Your task to perform on an android device: turn on the 12-hour format for clock Image 0: 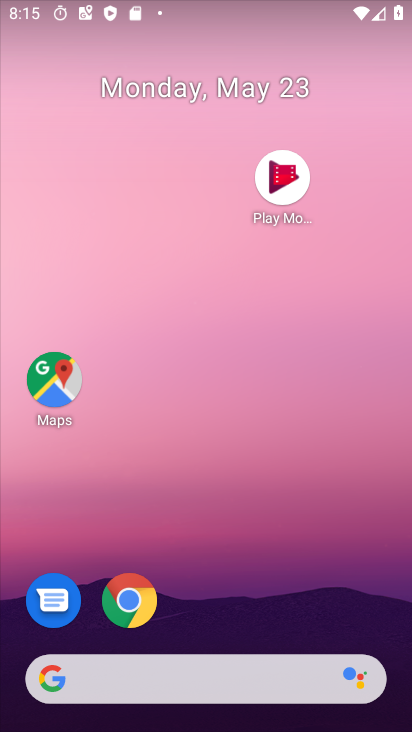
Step 0: drag from (340, 676) to (328, 38)
Your task to perform on an android device: turn on the 12-hour format for clock Image 1: 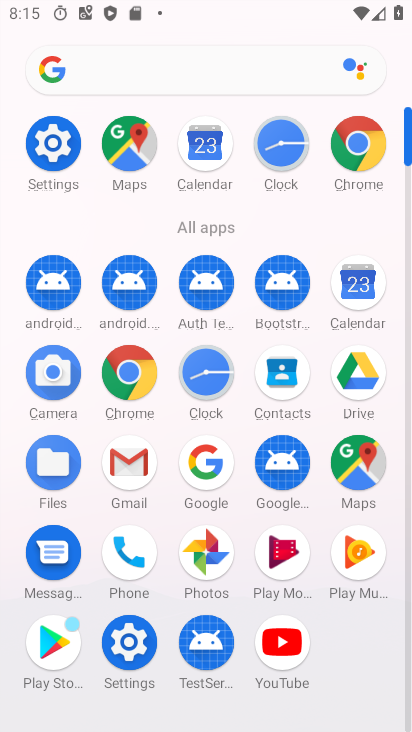
Step 1: click (198, 380)
Your task to perform on an android device: turn on the 12-hour format for clock Image 2: 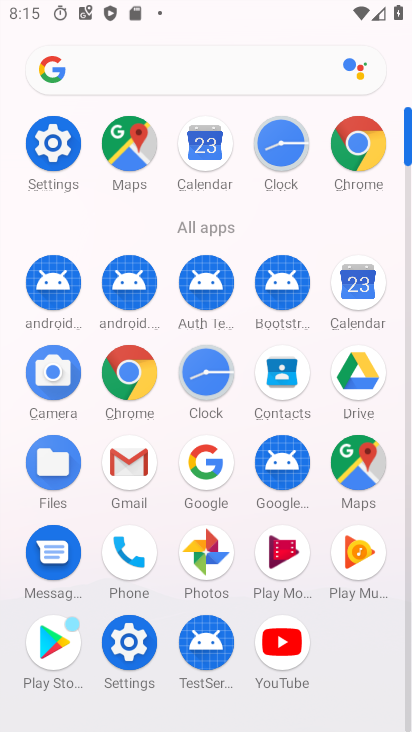
Step 2: click (201, 380)
Your task to perform on an android device: turn on the 12-hour format for clock Image 3: 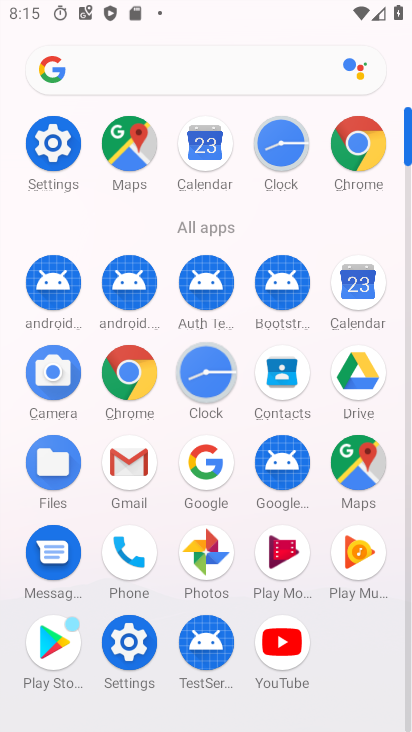
Step 3: click (199, 383)
Your task to perform on an android device: turn on the 12-hour format for clock Image 4: 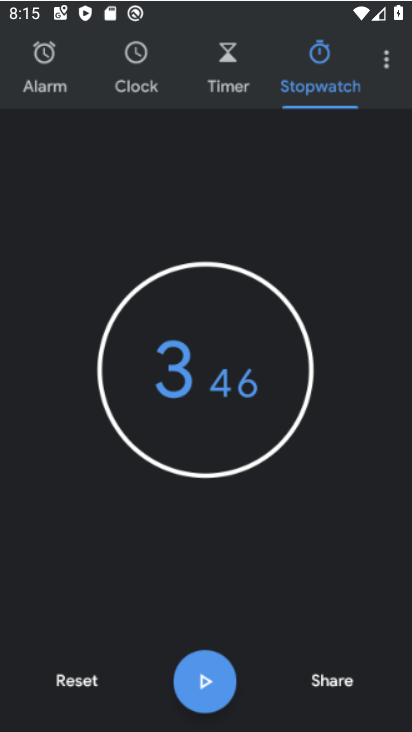
Step 4: click (199, 383)
Your task to perform on an android device: turn on the 12-hour format for clock Image 5: 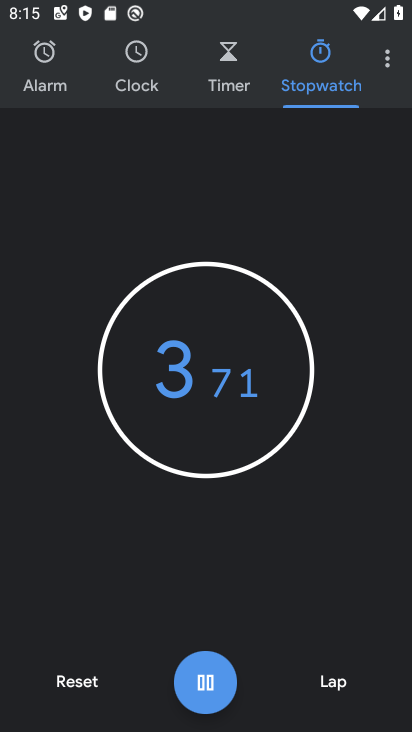
Step 5: click (199, 383)
Your task to perform on an android device: turn on the 12-hour format for clock Image 6: 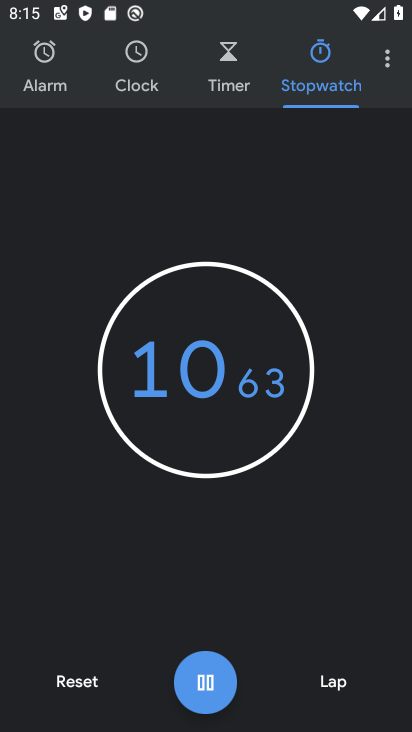
Step 6: click (201, 672)
Your task to perform on an android device: turn on the 12-hour format for clock Image 7: 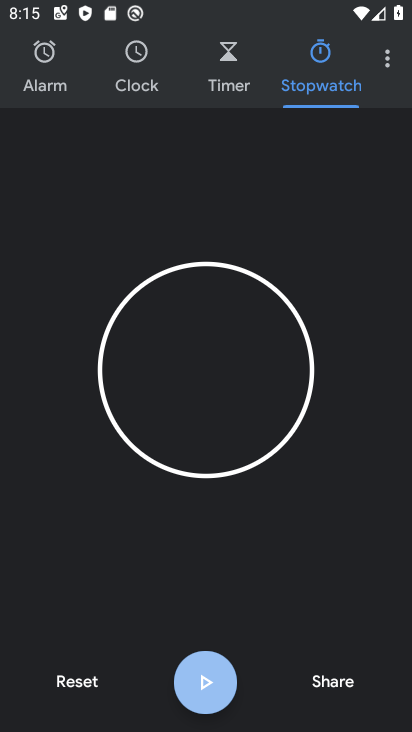
Step 7: click (201, 668)
Your task to perform on an android device: turn on the 12-hour format for clock Image 8: 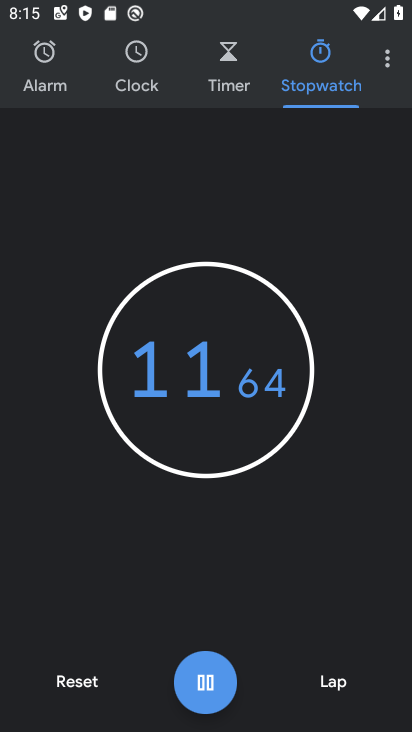
Step 8: click (209, 681)
Your task to perform on an android device: turn on the 12-hour format for clock Image 9: 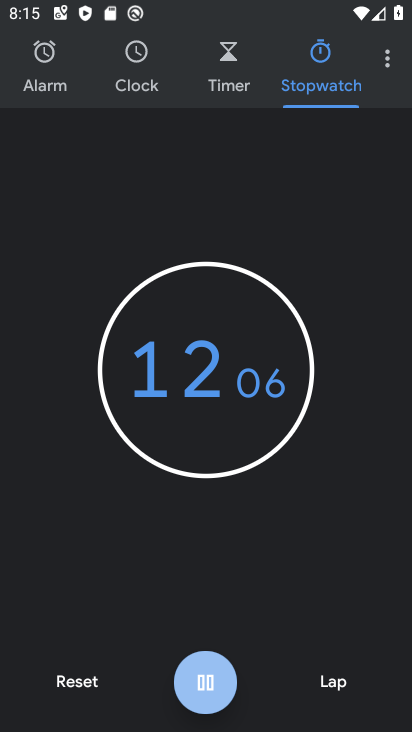
Step 9: click (205, 676)
Your task to perform on an android device: turn on the 12-hour format for clock Image 10: 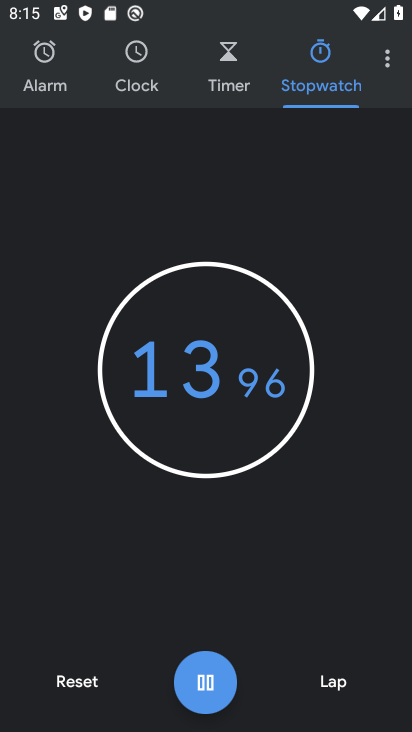
Step 10: click (192, 676)
Your task to perform on an android device: turn on the 12-hour format for clock Image 11: 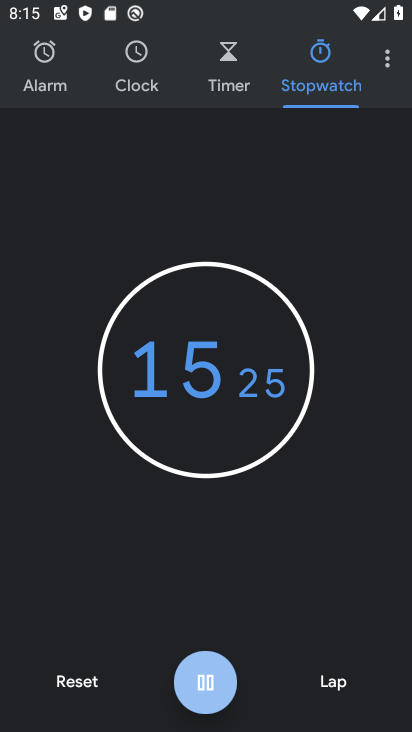
Step 11: click (200, 682)
Your task to perform on an android device: turn on the 12-hour format for clock Image 12: 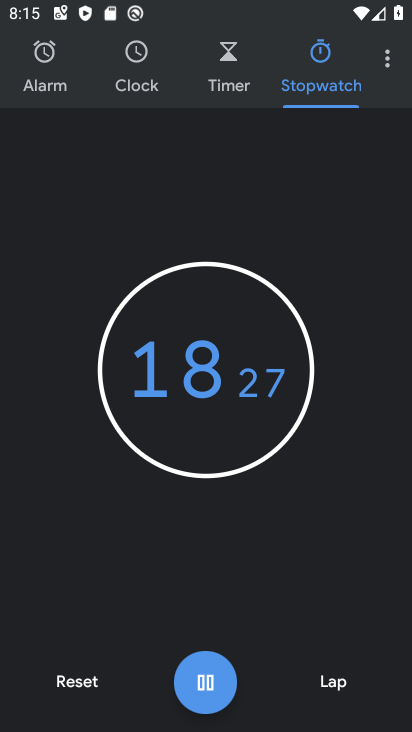
Step 12: click (202, 682)
Your task to perform on an android device: turn on the 12-hour format for clock Image 13: 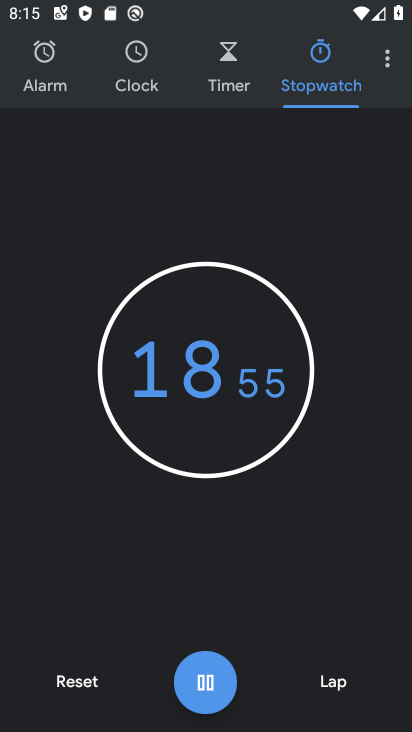
Step 13: click (207, 677)
Your task to perform on an android device: turn on the 12-hour format for clock Image 14: 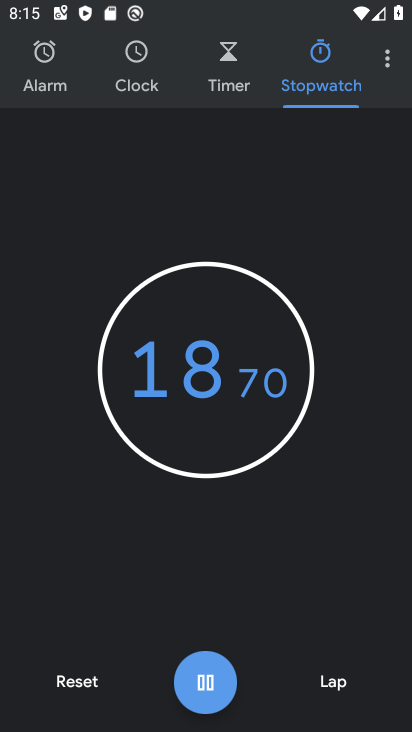
Step 14: click (206, 677)
Your task to perform on an android device: turn on the 12-hour format for clock Image 15: 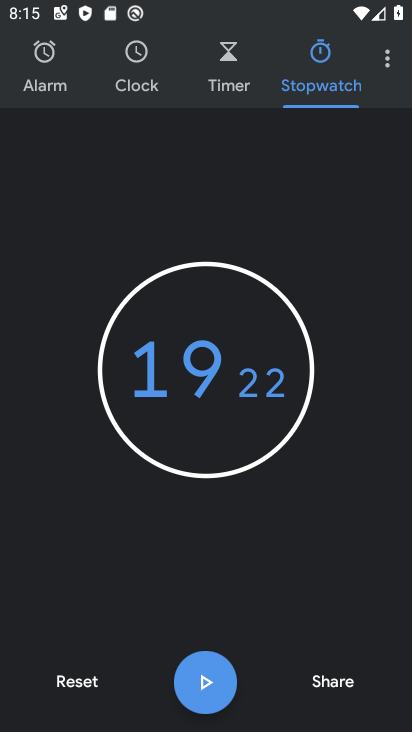
Step 15: click (386, 64)
Your task to perform on an android device: turn on the 12-hour format for clock Image 16: 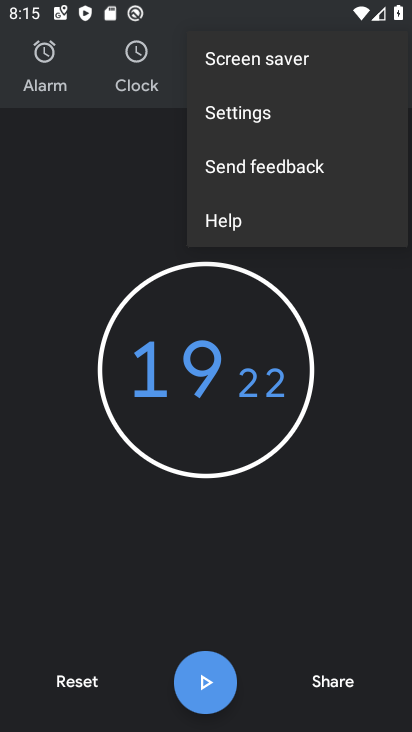
Step 16: click (227, 105)
Your task to perform on an android device: turn on the 12-hour format for clock Image 17: 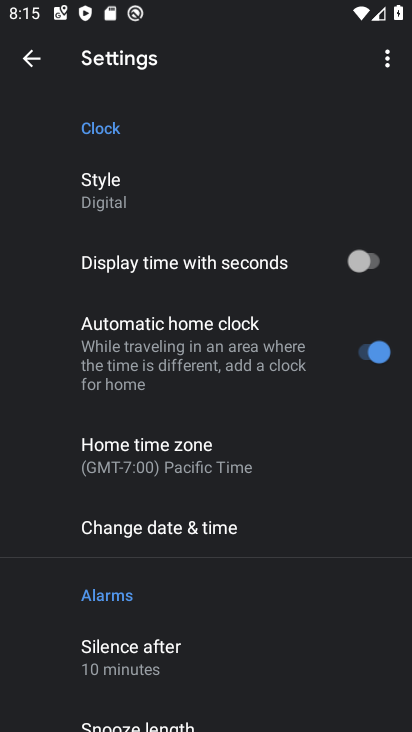
Step 17: drag from (192, 590) to (115, 181)
Your task to perform on an android device: turn on the 12-hour format for clock Image 18: 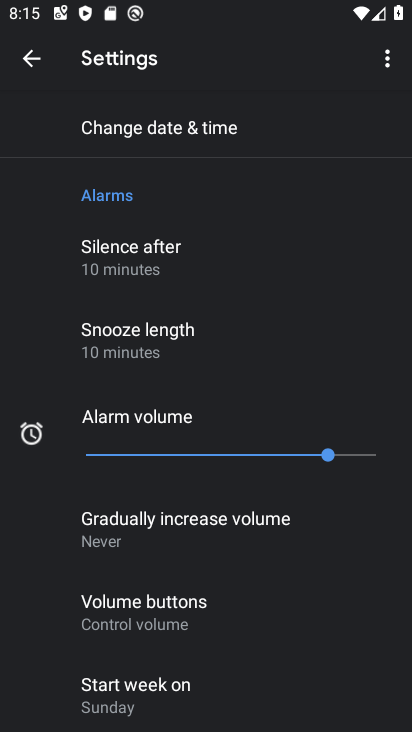
Step 18: drag from (184, 531) to (127, 150)
Your task to perform on an android device: turn on the 12-hour format for clock Image 19: 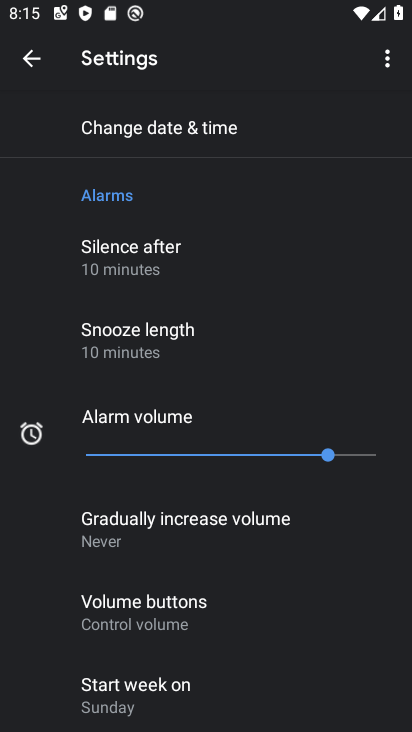
Step 19: click (185, 117)
Your task to perform on an android device: turn on the 12-hour format for clock Image 20: 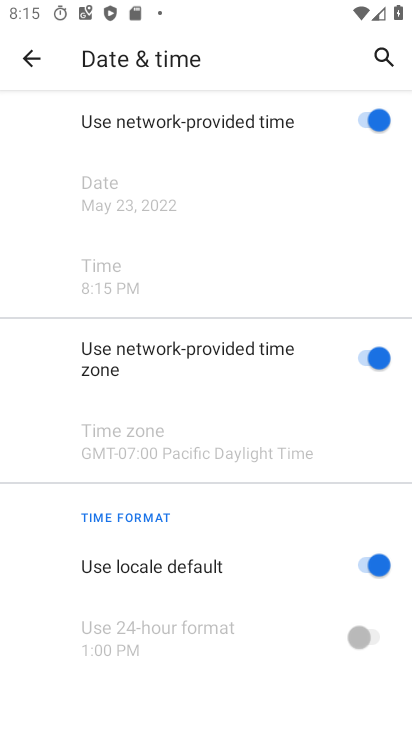
Step 20: task complete